Your task to perform on an android device: change keyboard looks Image 0: 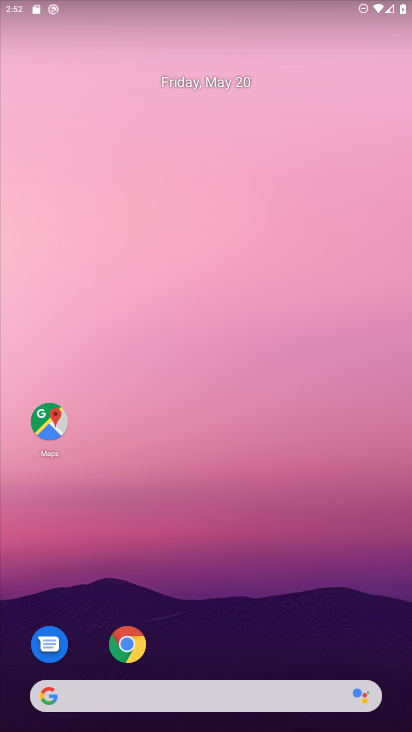
Step 0: drag from (259, 589) to (182, 25)
Your task to perform on an android device: change keyboard looks Image 1: 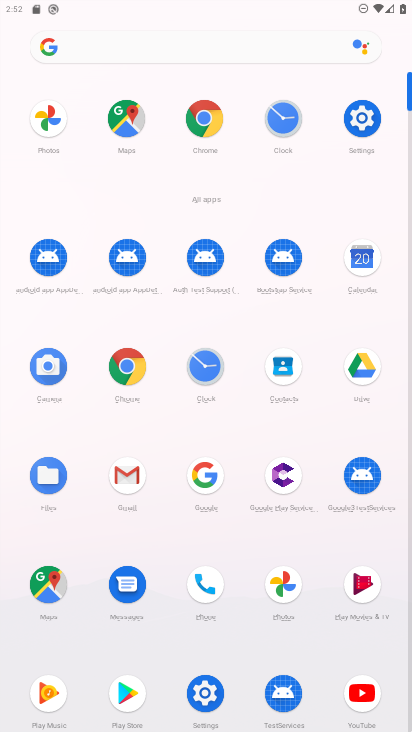
Step 1: click (202, 689)
Your task to perform on an android device: change keyboard looks Image 2: 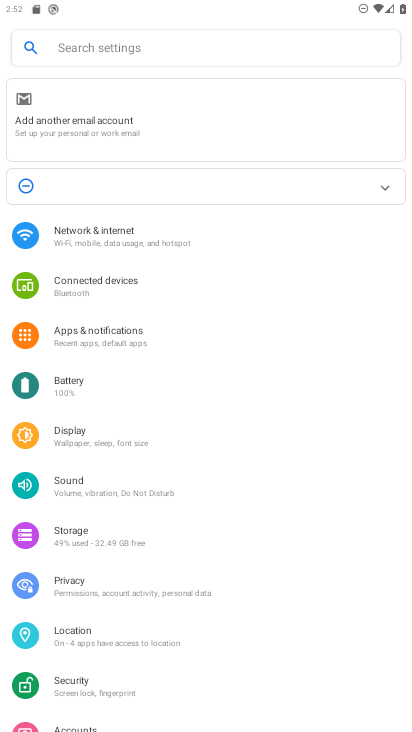
Step 2: drag from (85, 520) to (131, 404)
Your task to perform on an android device: change keyboard looks Image 3: 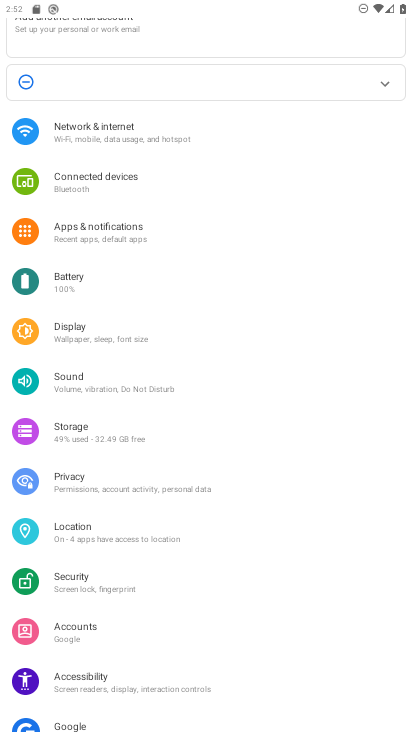
Step 3: drag from (118, 467) to (178, 389)
Your task to perform on an android device: change keyboard looks Image 4: 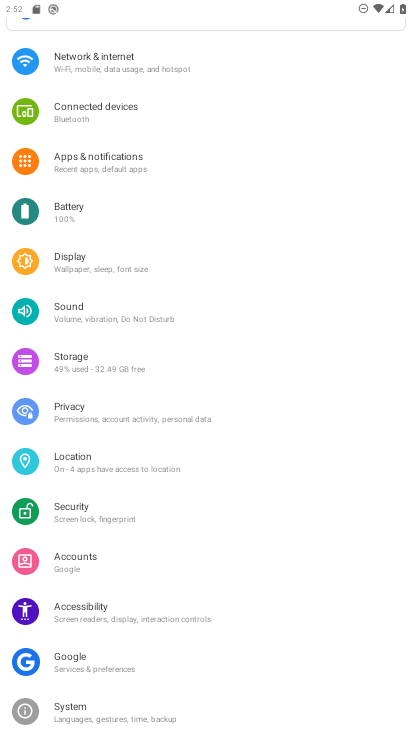
Step 4: drag from (110, 567) to (161, 478)
Your task to perform on an android device: change keyboard looks Image 5: 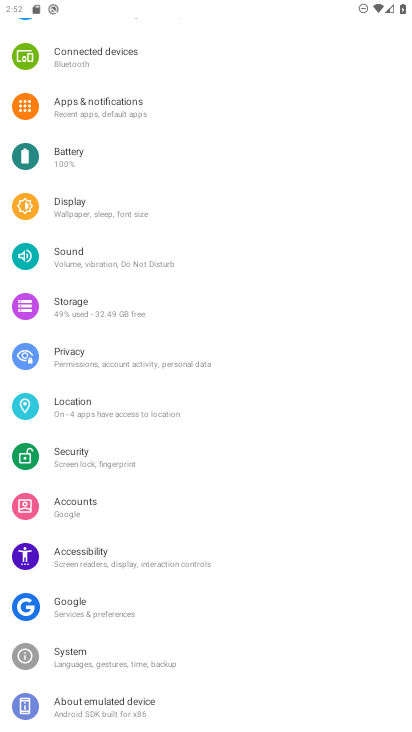
Step 5: drag from (108, 623) to (173, 532)
Your task to perform on an android device: change keyboard looks Image 6: 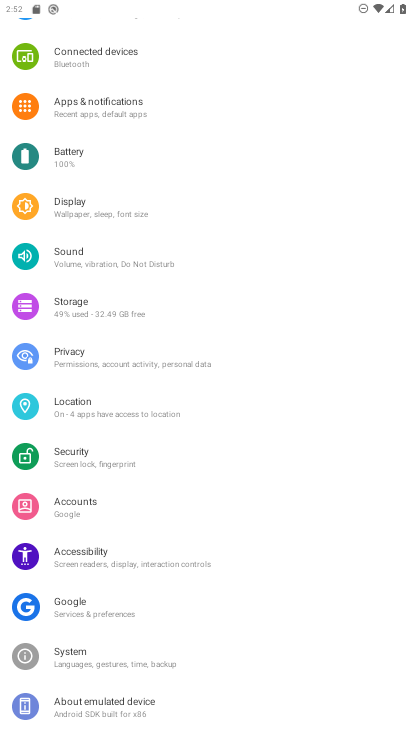
Step 6: click (82, 660)
Your task to perform on an android device: change keyboard looks Image 7: 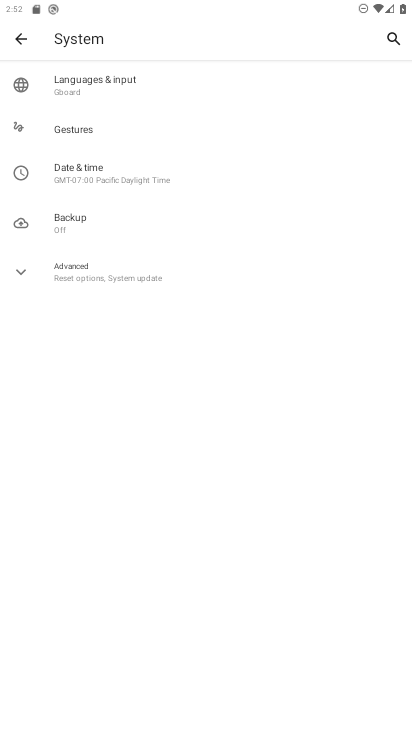
Step 7: click (93, 79)
Your task to perform on an android device: change keyboard looks Image 8: 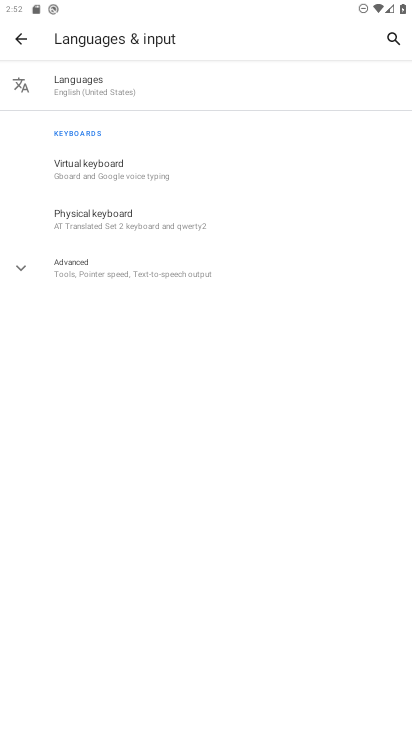
Step 8: click (78, 169)
Your task to perform on an android device: change keyboard looks Image 9: 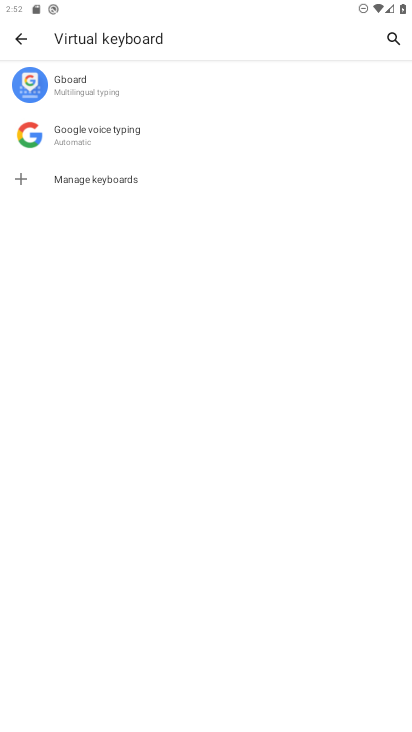
Step 9: click (63, 90)
Your task to perform on an android device: change keyboard looks Image 10: 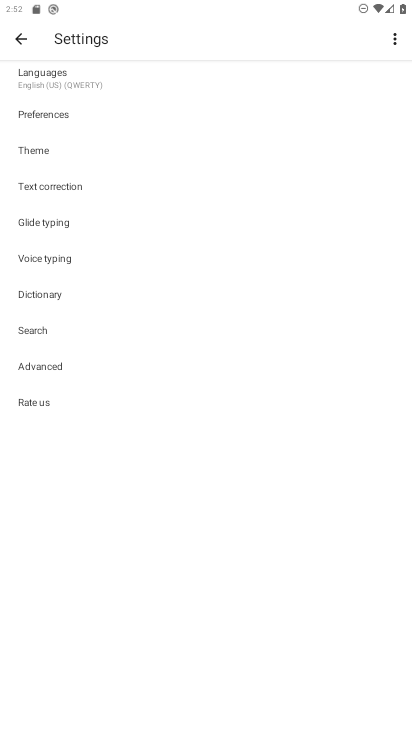
Step 10: click (37, 150)
Your task to perform on an android device: change keyboard looks Image 11: 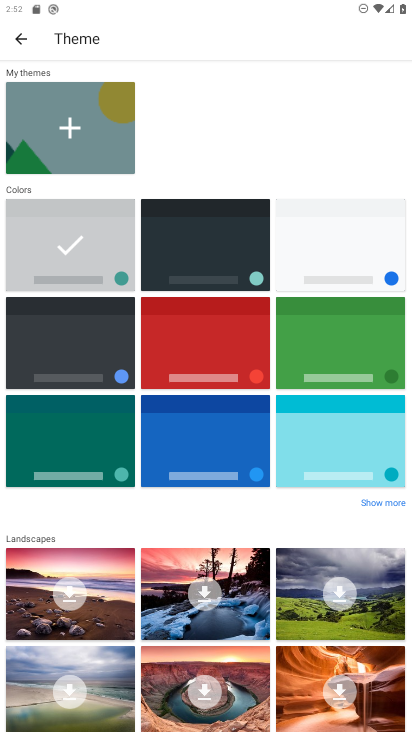
Step 11: click (217, 447)
Your task to perform on an android device: change keyboard looks Image 12: 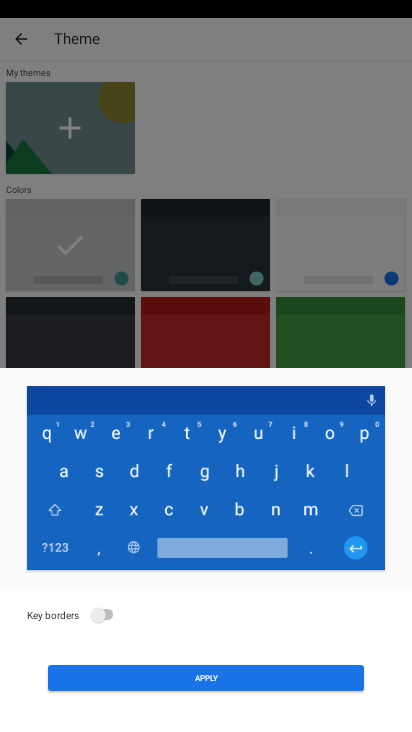
Step 12: click (101, 616)
Your task to perform on an android device: change keyboard looks Image 13: 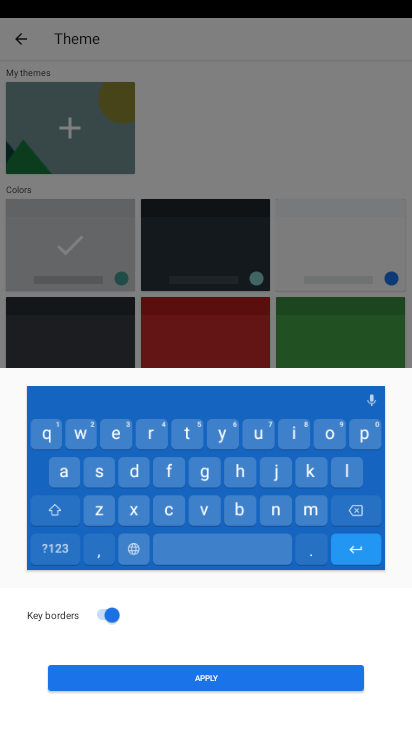
Step 13: click (202, 686)
Your task to perform on an android device: change keyboard looks Image 14: 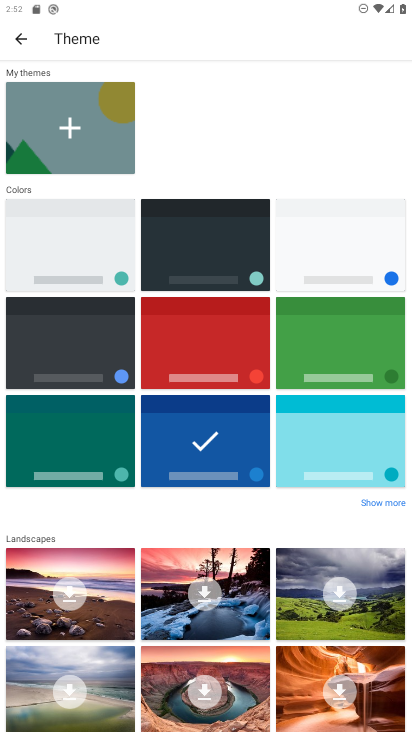
Step 14: task complete